Your task to perform on an android device: What's the weather going to be tomorrow? Image 0: 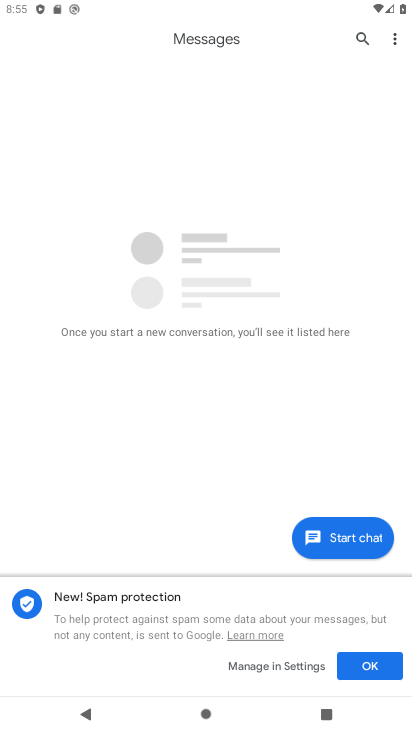
Step 0: press home button
Your task to perform on an android device: What's the weather going to be tomorrow? Image 1: 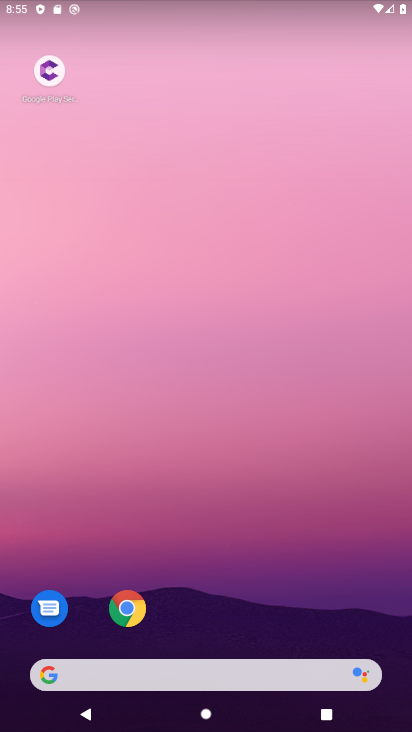
Step 1: drag from (306, 635) to (242, 71)
Your task to perform on an android device: What's the weather going to be tomorrow? Image 2: 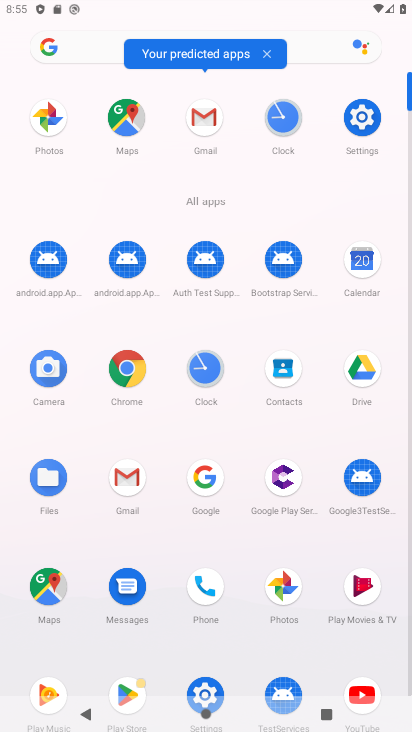
Step 2: click (129, 395)
Your task to perform on an android device: What's the weather going to be tomorrow? Image 3: 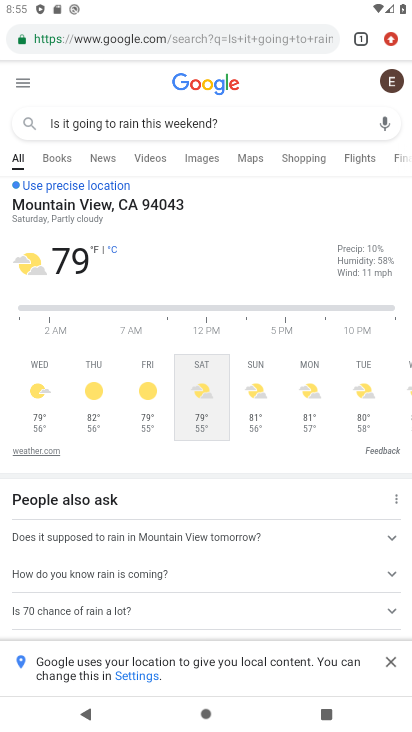
Step 3: click (312, 117)
Your task to perform on an android device: What's the weather going to be tomorrow? Image 4: 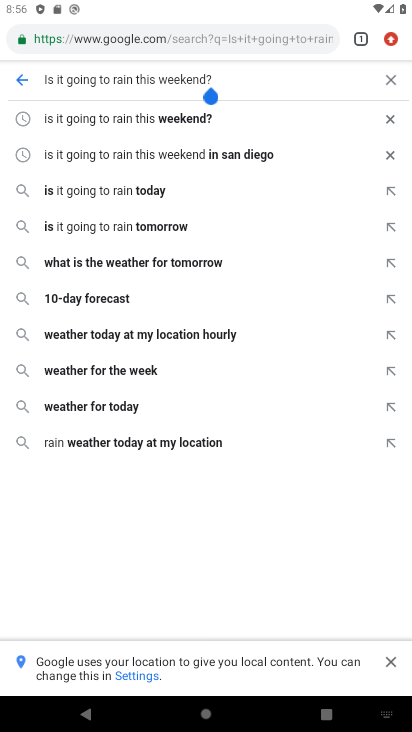
Step 4: click (393, 79)
Your task to perform on an android device: What's the weather going to be tomorrow? Image 5: 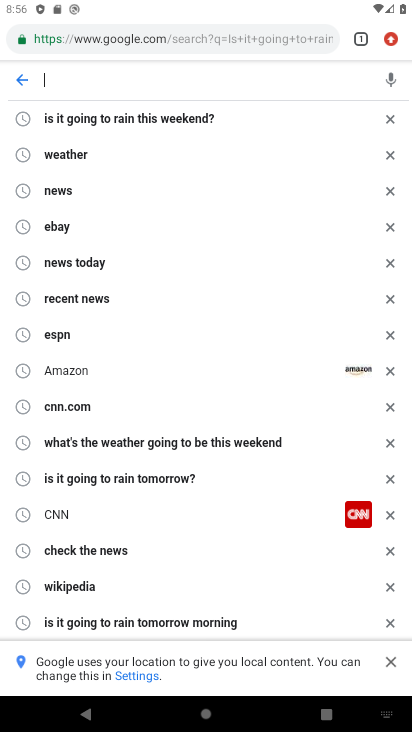
Step 5: click (218, 436)
Your task to perform on an android device: What's the weather going to be tomorrow? Image 6: 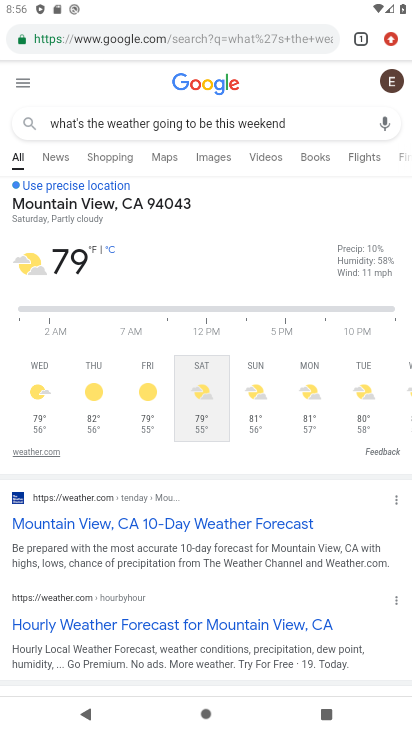
Step 6: task complete